Your task to perform on an android device: Open Reddit.com Image 0: 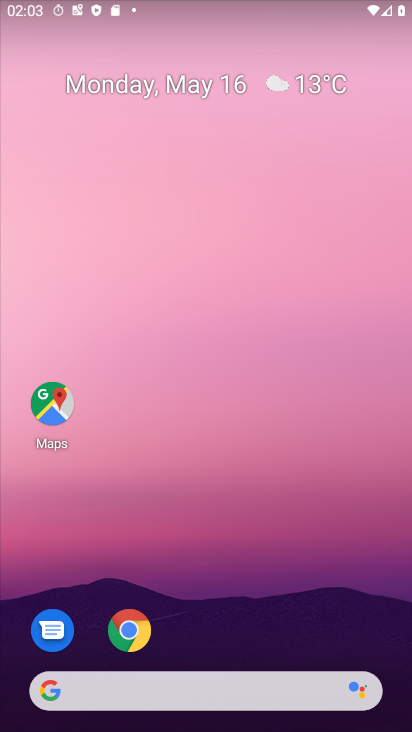
Step 0: drag from (376, 571) to (295, 167)
Your task to perform on an android device: Open Reddit.com Image 1: 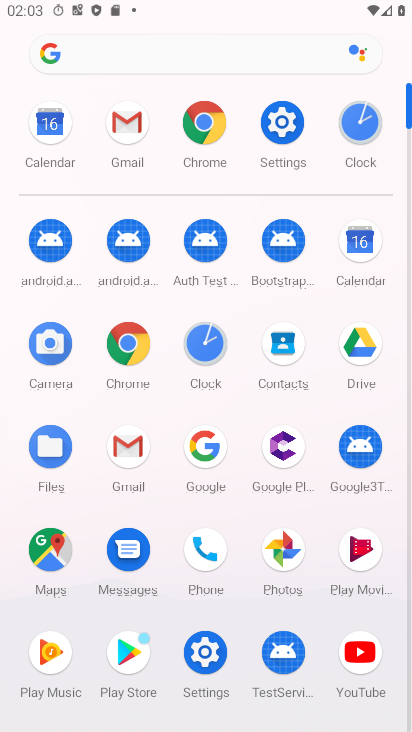
Step 1: click (209, 137)
Your task to perform on an android device: Open Reddit.com Image 2: 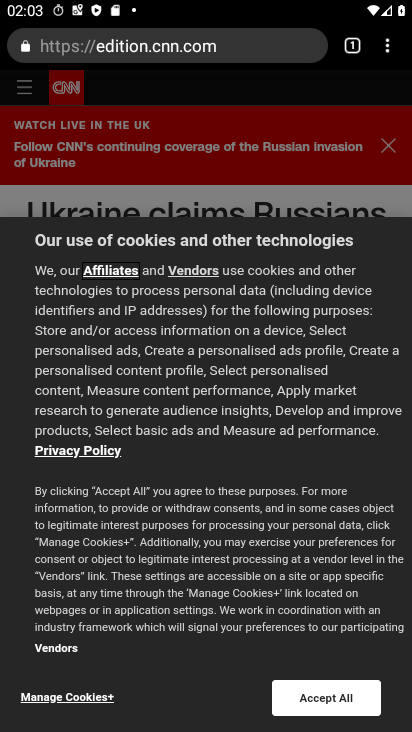
Step 2: click (226, 50)
Your task to perform on an android device: Open Reddit.com Image 3: 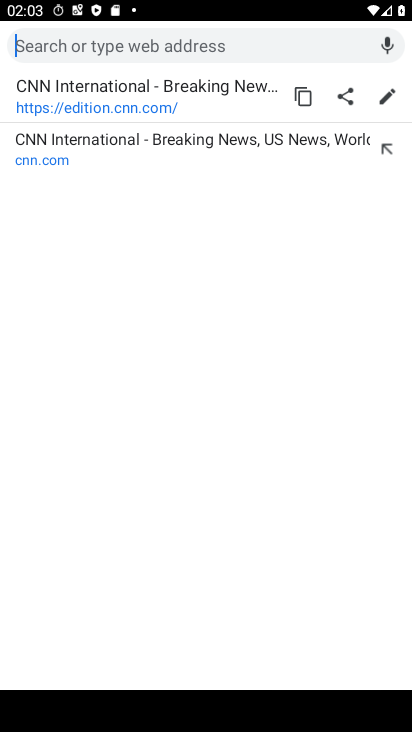
Step 3: type "reddit.com"
Your task to perform on an android device: Open Reddit.com Image 4: 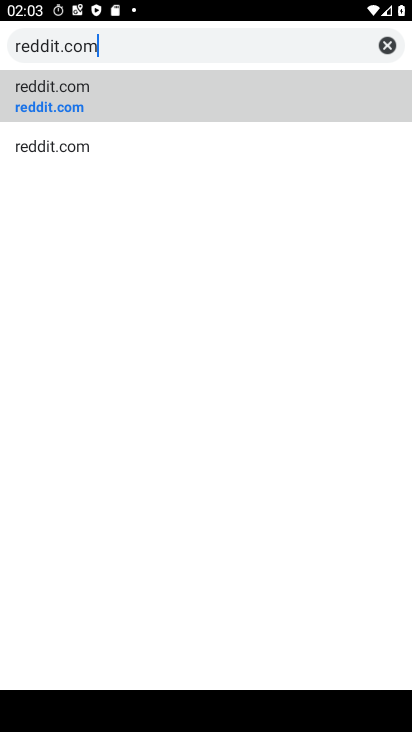
Step 4: click (62, 119)
Your task to perform on an android device: Open Reddit.com Image 5: 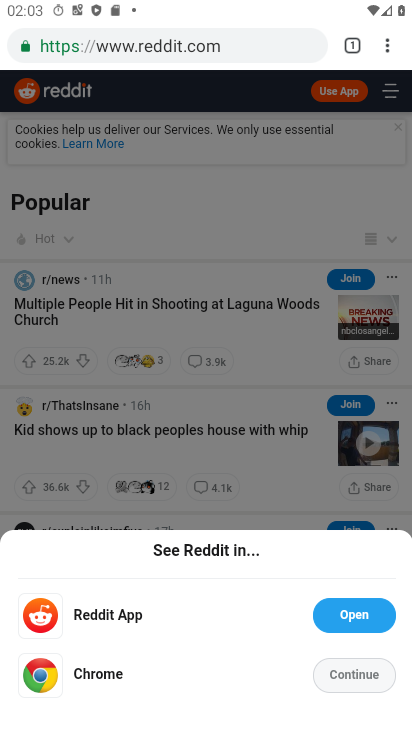
Step 5: task complete